Your task to perform on an android device: set the stopwatch Image 0: 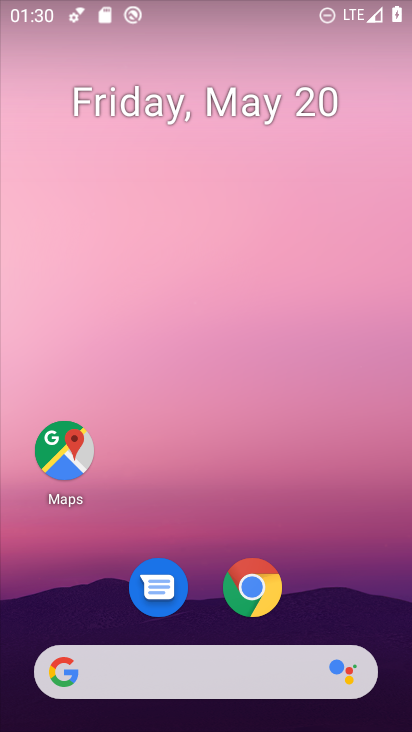
Step 0: drag from (378, 594) to (355, 123)
Your task to perform on an android device: set the stopwatch Image 1: 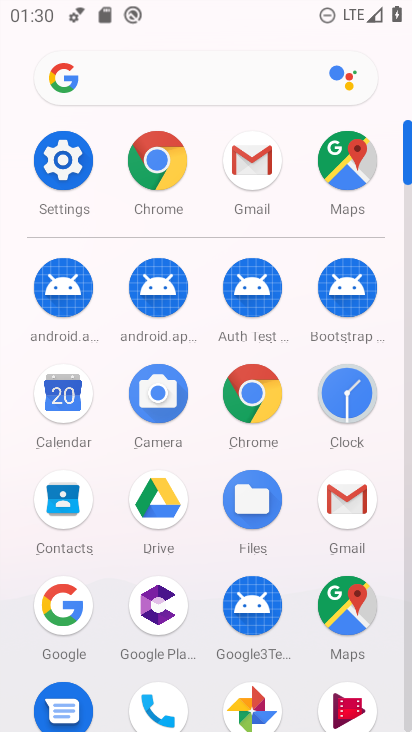
Step 1: click (349, 395)
Your task to perform on an android device: set the stopwatch Image 2: 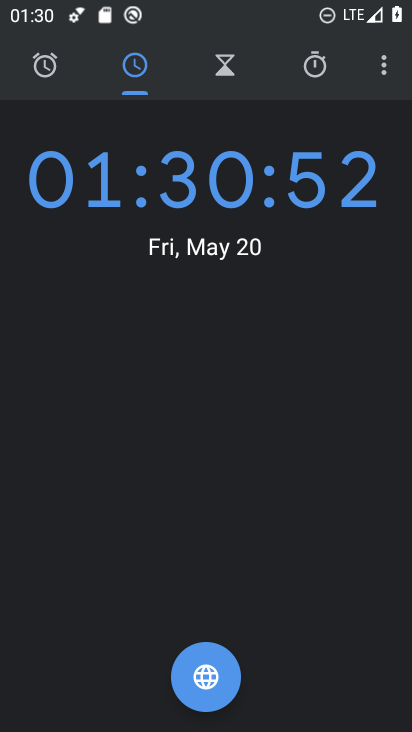
Step 2: click (319, 80)
Your task to perform on an android device: set the stopwatch Image 3: 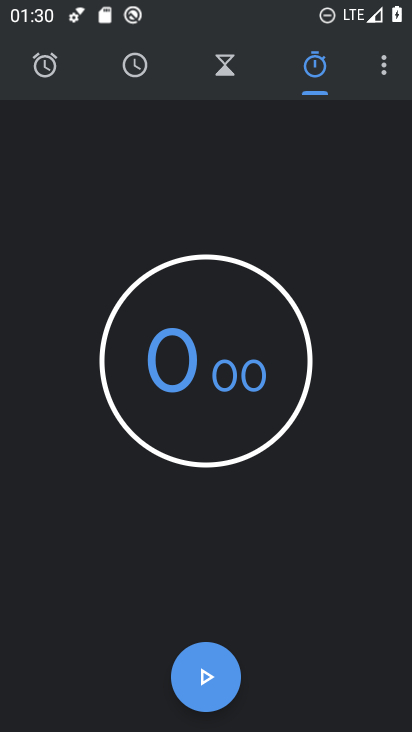
Step 3: click (209, 685)
Your task to perform on an android device: set the stopwatch Image 4: 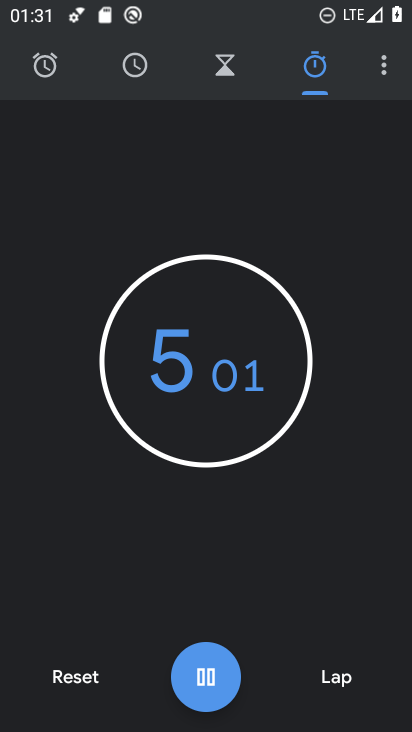
Step 4: task complete